Your task to perform on an android device: Add logitech g910 to the cart on bestbuy.com Image 0: 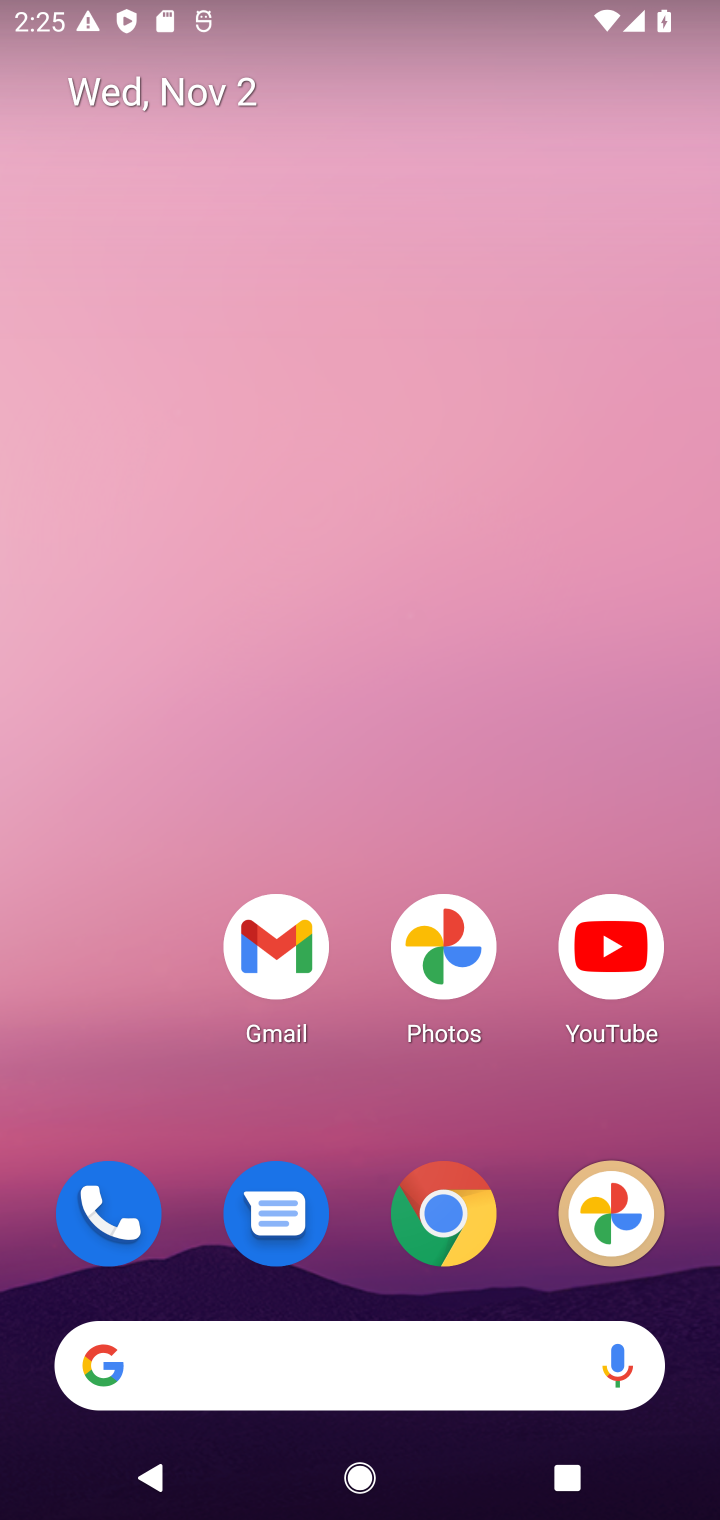
Step 0: click (446, 1228)
Your task to perform on an android device: Add logitech g910 to the cart on bestbuy.com Image 1: 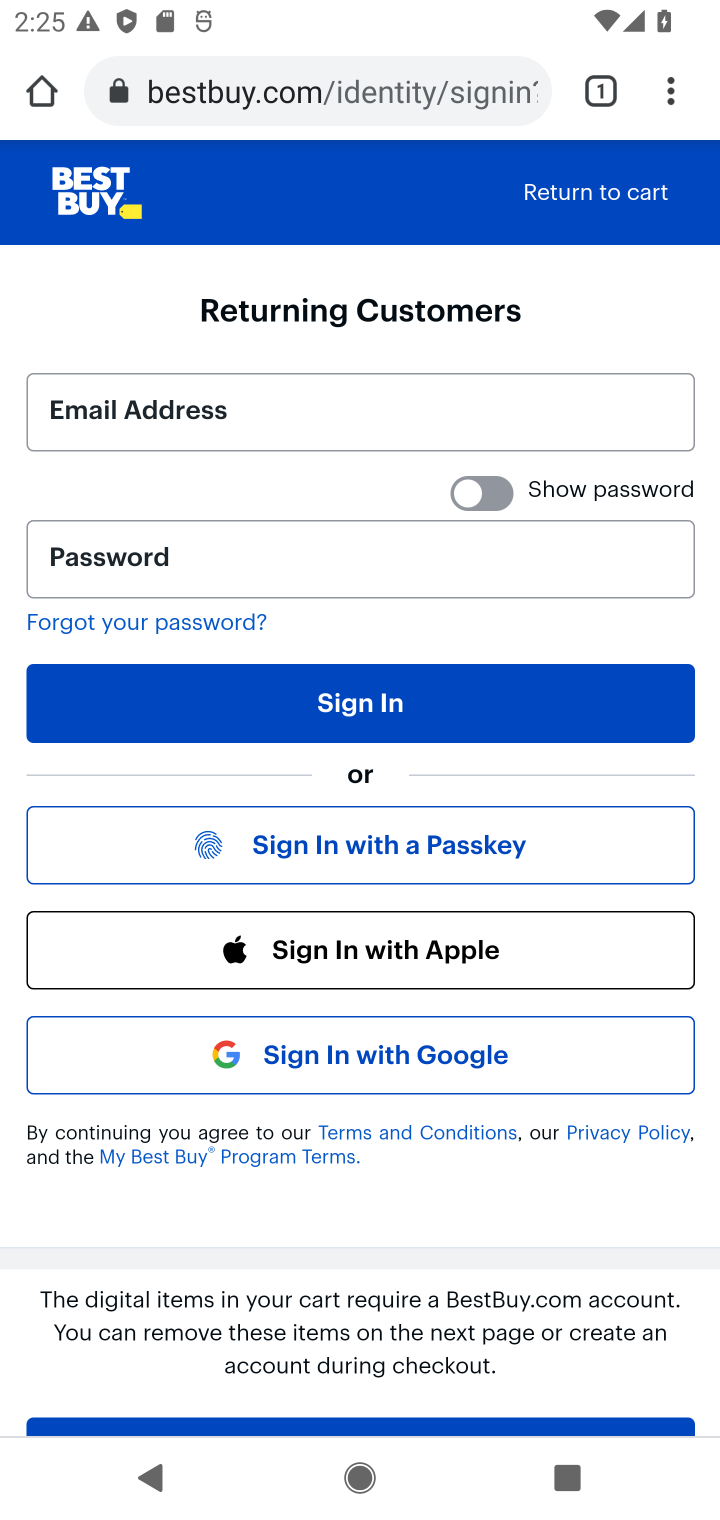
Step 1: click (343, 92)
Your task to perform on an android device: Add logitech g910 to the cart on bestbuy.com Image 2: 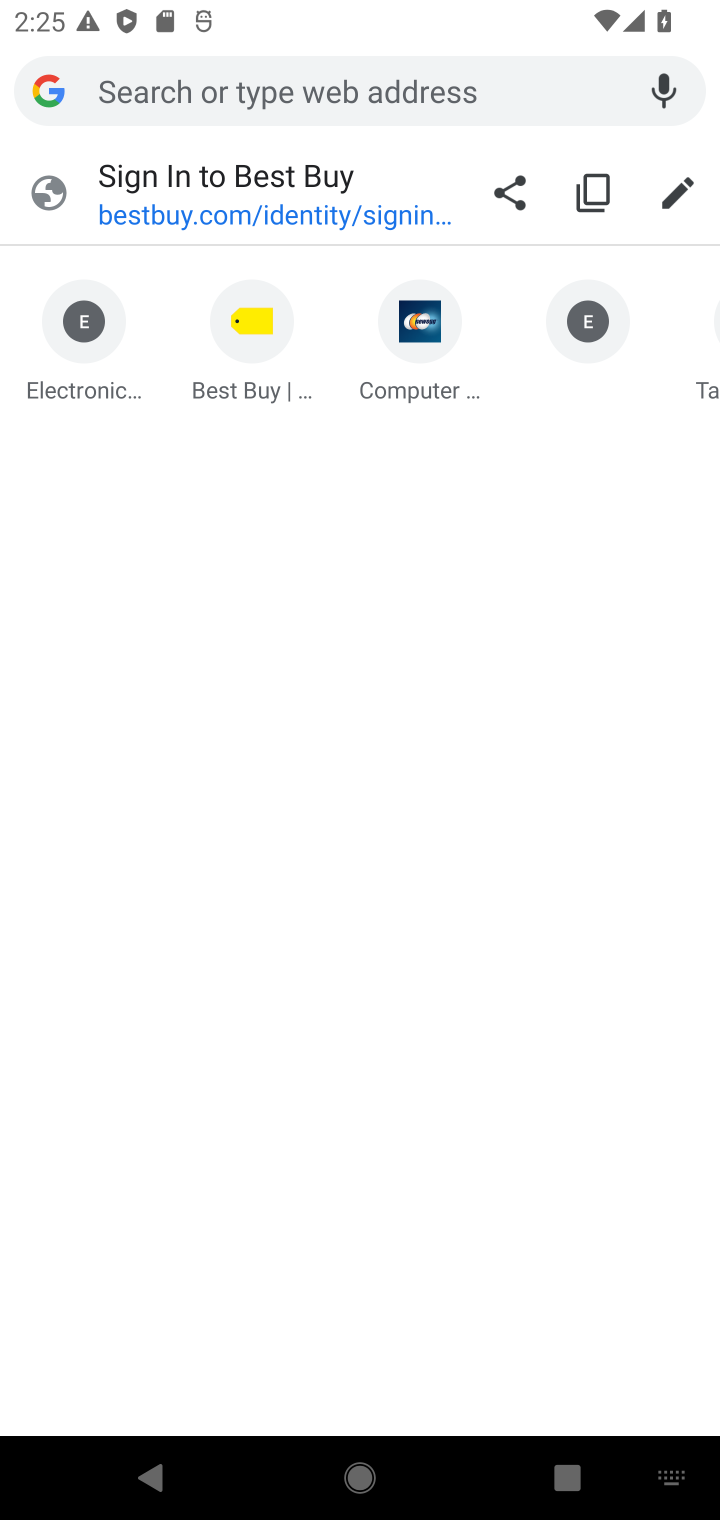
Step 2: press back button
Your task to perform on an android device: Add logitech g910 to the cart on bestbuy.com Image 3: 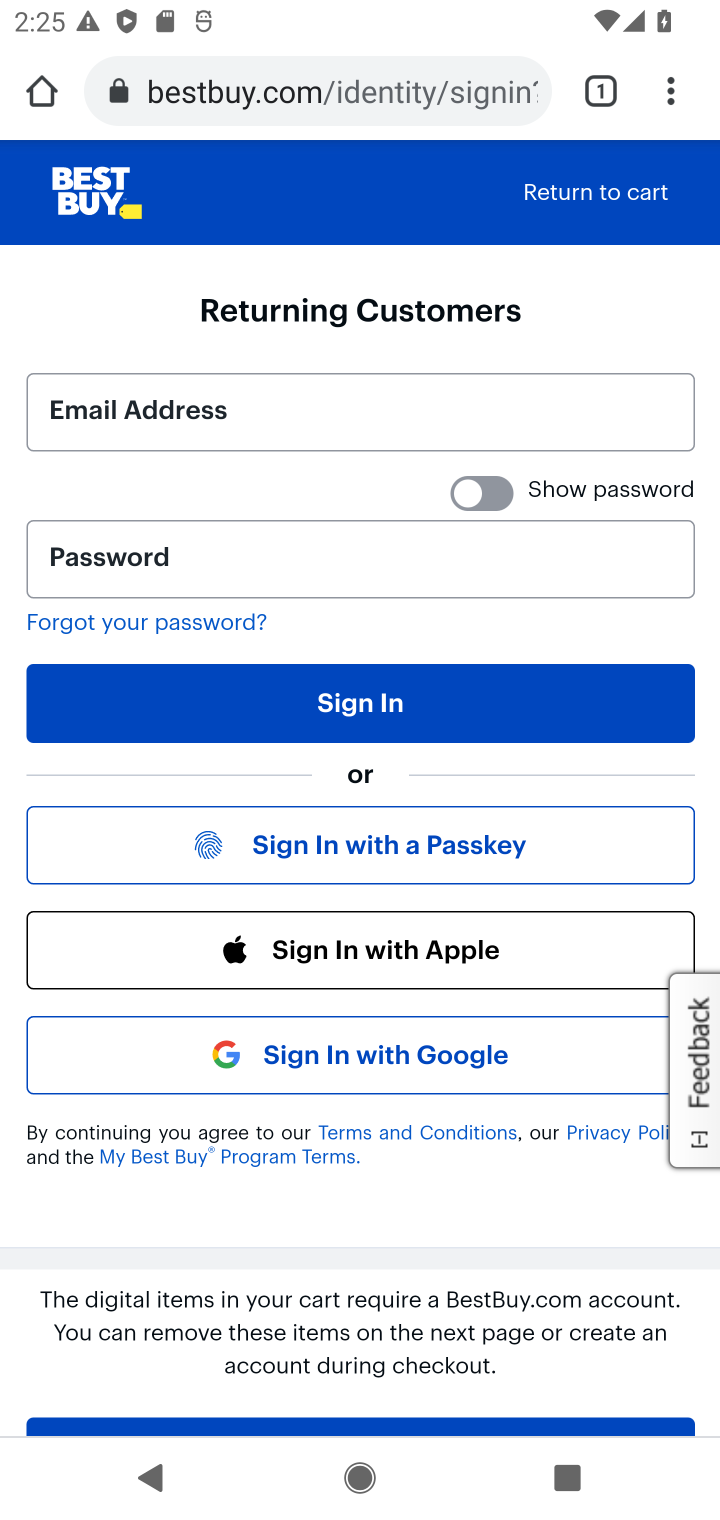
Step 3: click (85, 201)
Your task to perform on an android device: Add logitech g910 to the cart on bestbuy.com Image 4: 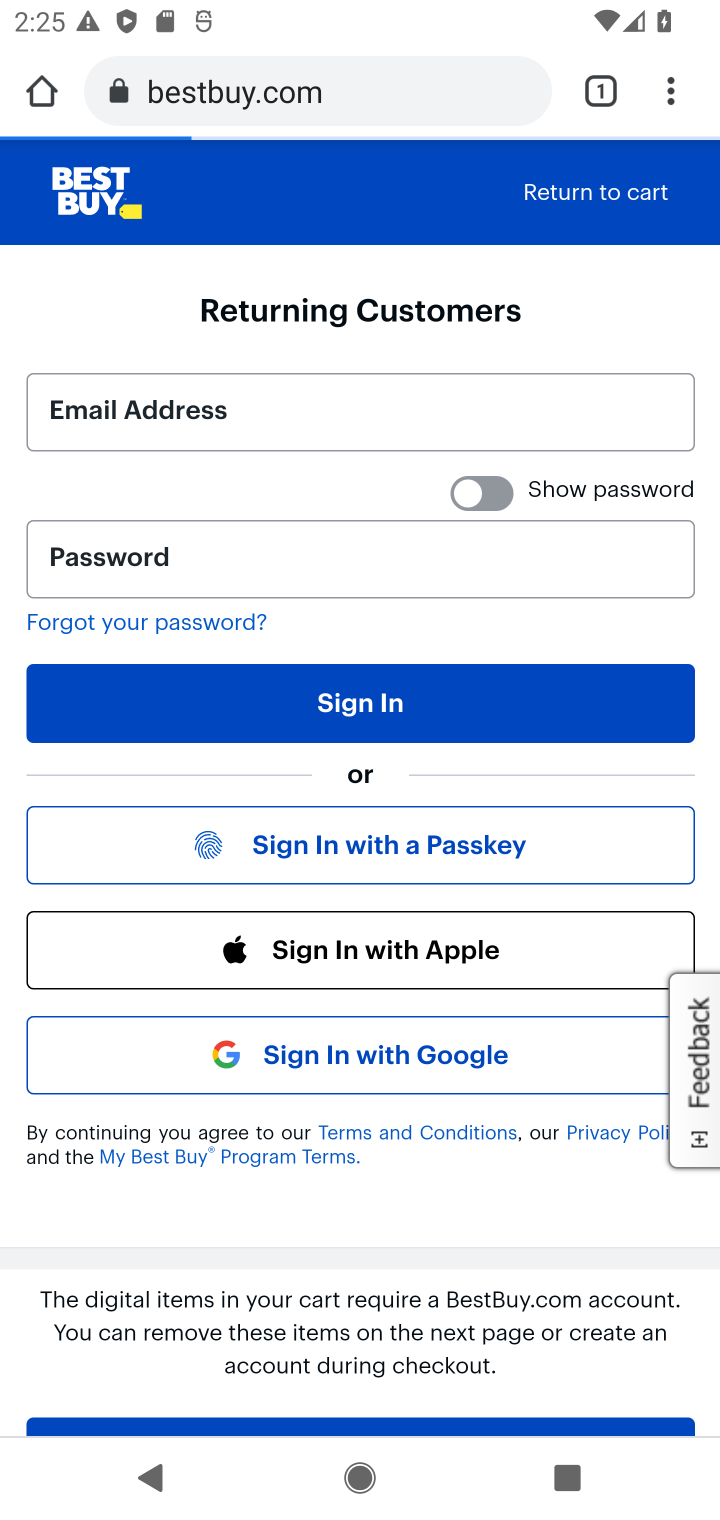
Step 4: click (589, 190)
Your task to perform on an android device: Add logitech g910 to the cart on bestbuy.com Image 5: 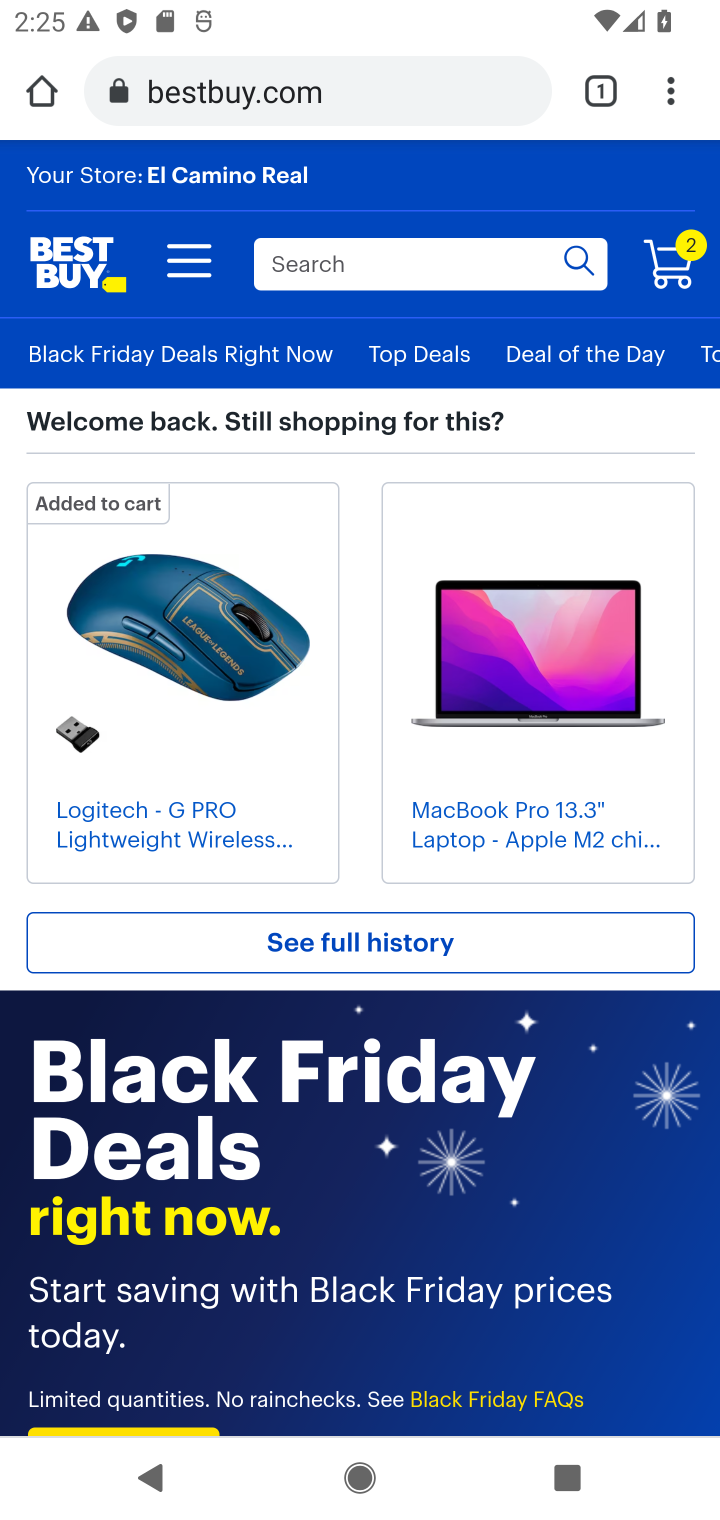
Step 5: click (467, 257)
Your task to perform on an android device: Add logitech g910 to the cart on bestbuy.com Image 6: 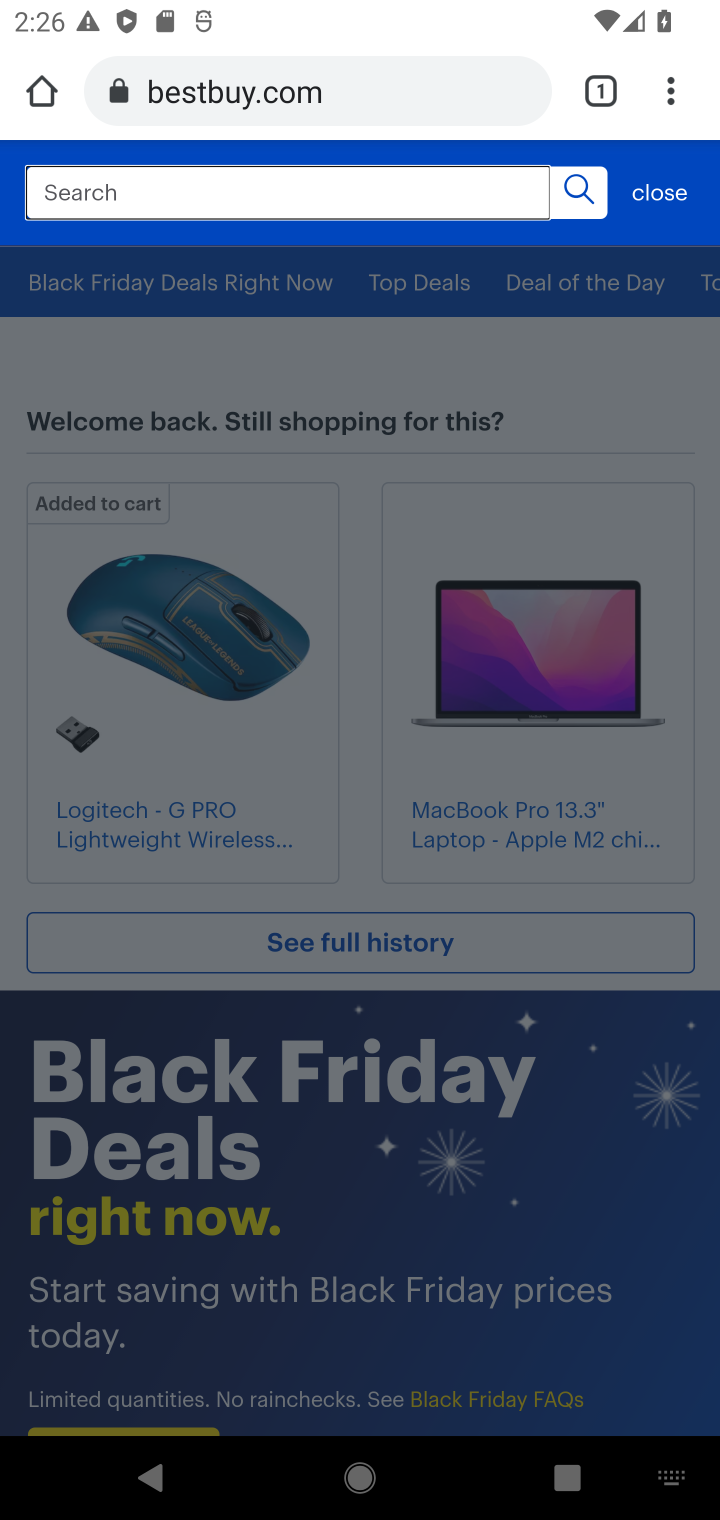
Step 6: type "logitech g910"
Your task to perform on an android device: Add logitech g910 to the cart on bestbuy.com Image 7: 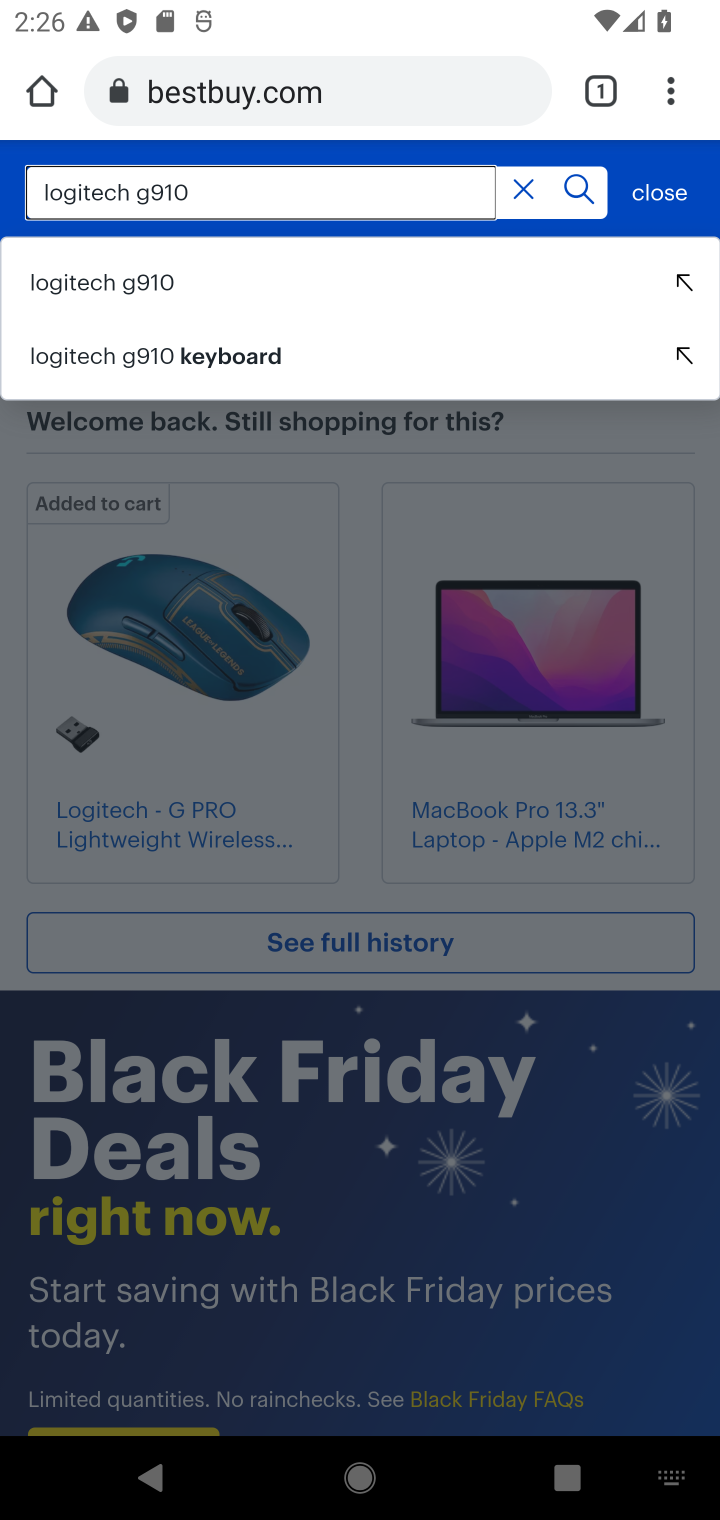
Step 7: press enter
Your task to perform on an android device: Add logitech g910 to the cart on bestbuy.com Image 8: 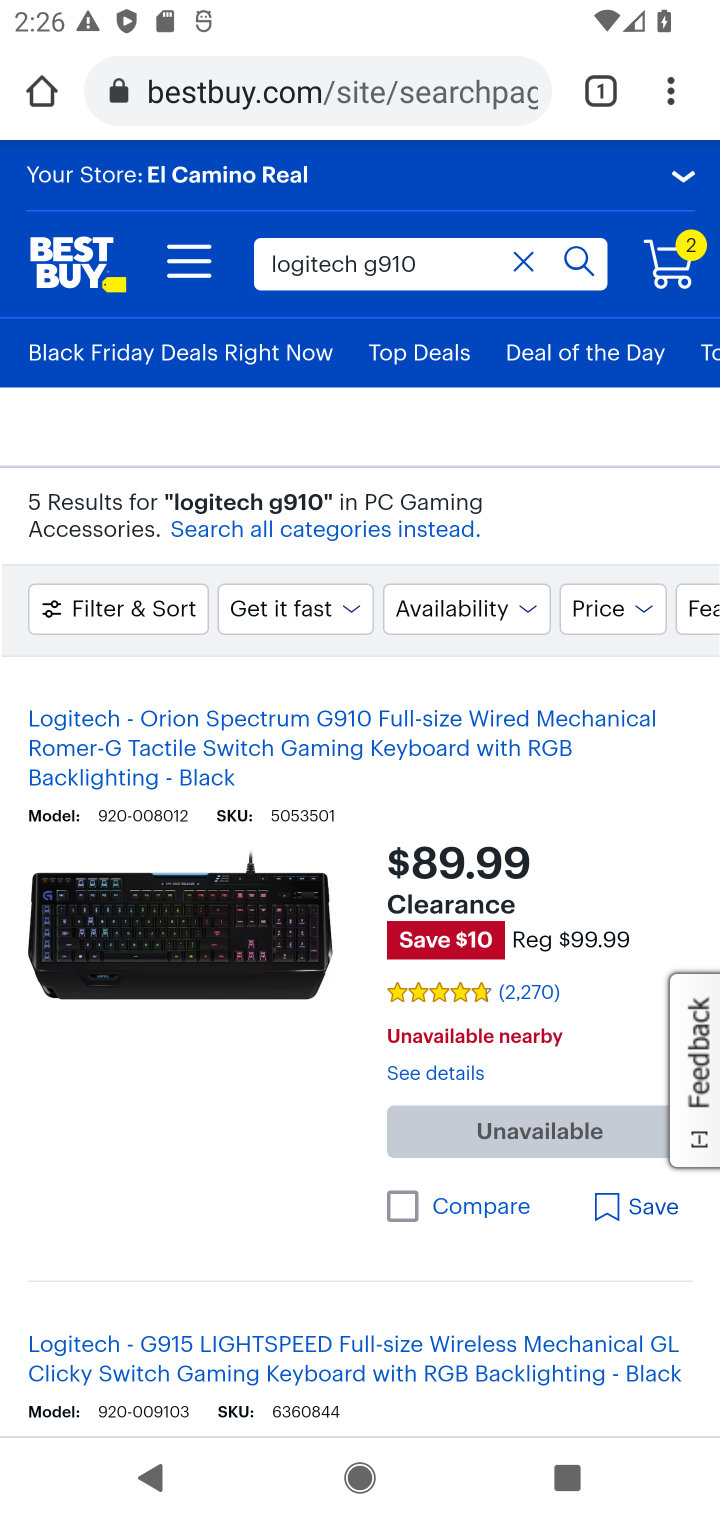
Step 8: click (245, 937)
Your task to perform on an android device: Add logitech g910 to the cart on bestbuy.com Image 9: 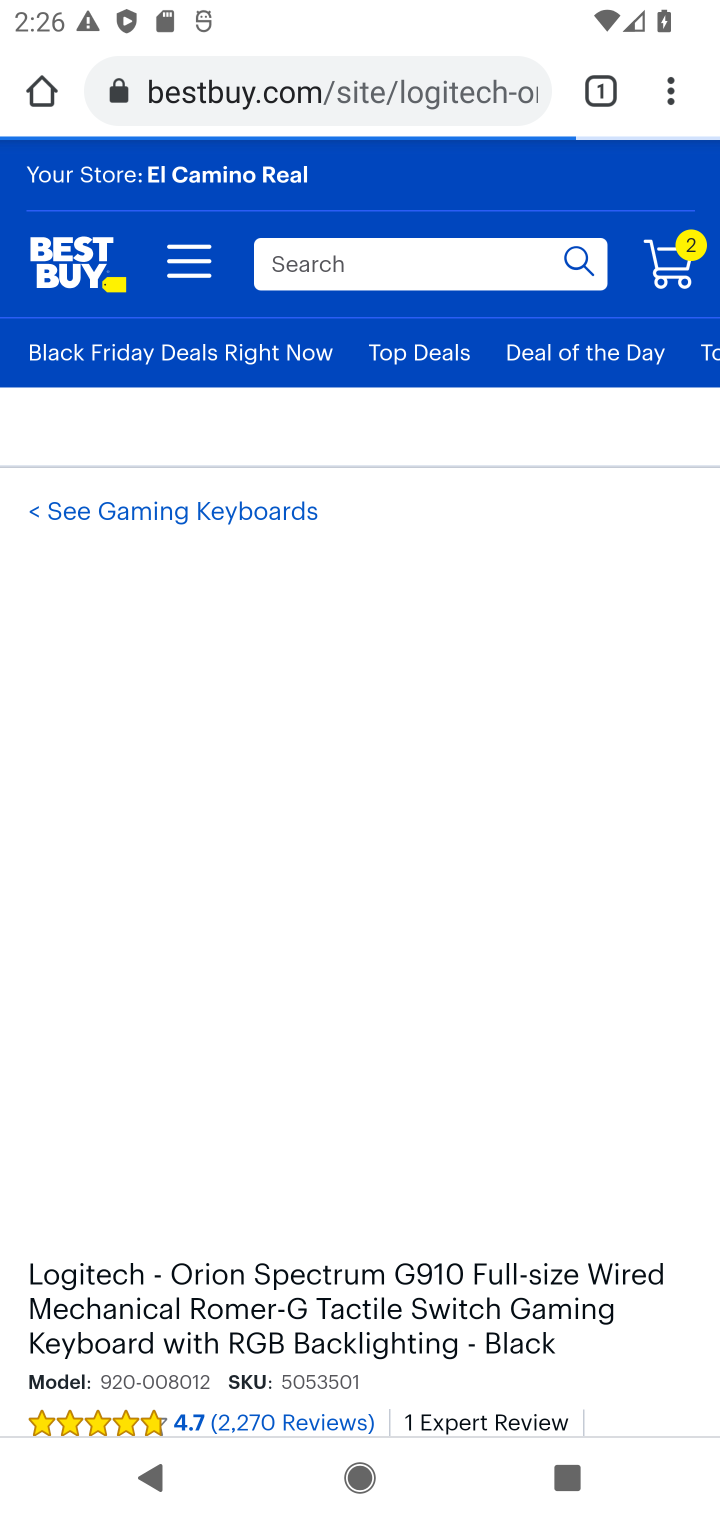
Step 9: task complete